Your task to perform on an android device: set the stopwatch Image 0: 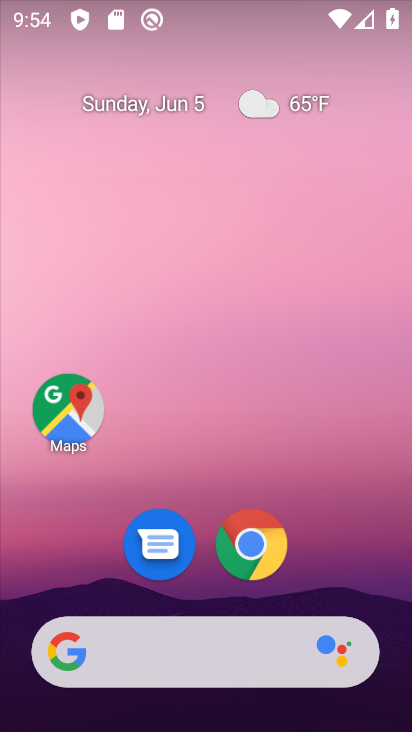
Step 0: drag from (365, 598) to (234, 61)
Your task to perform on an android device: set the stopwatch Image 1: 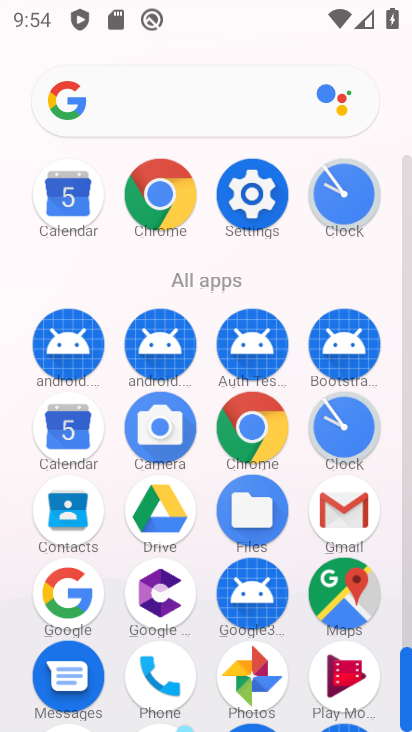
Step 1: click (327, 203)
Your task to perform on an android device: set the stopwatch Image 2: 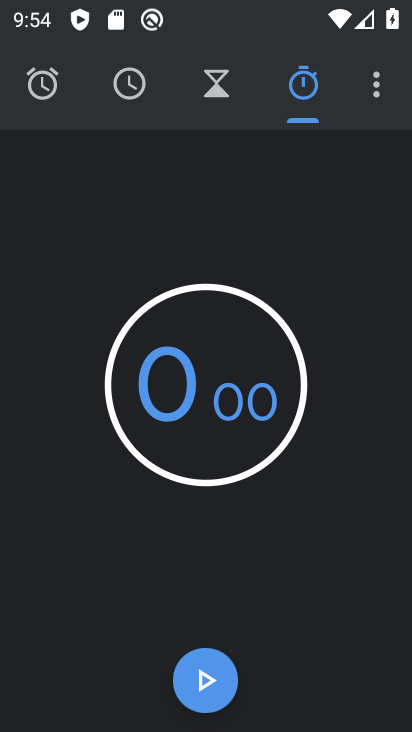
Step 2: task complete